Your task to perform on an android device: turn on sleep mode Image 0: 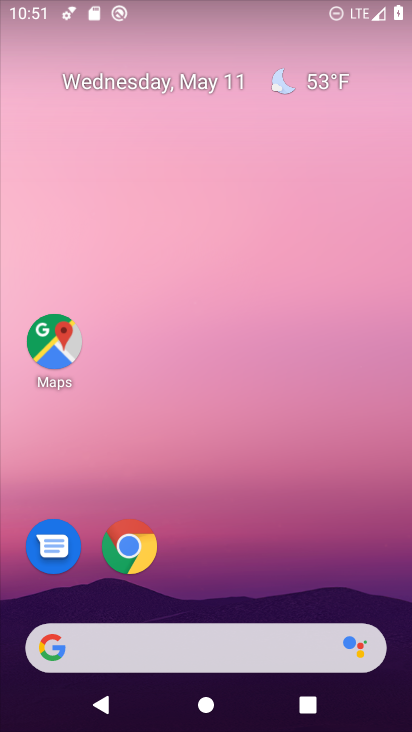
Step 0: drag from (404, 636) to (291, 40)
Your task to perform on an android device: turn on sleep mode Image 1: 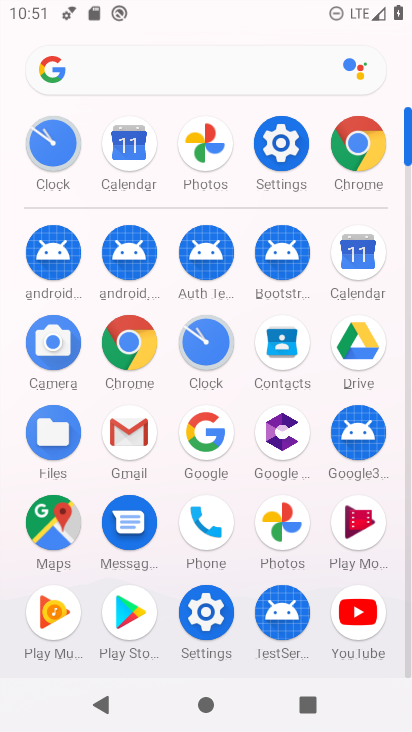
Step 1: click (226, 626)
Your task to perform on an android device: turn on sleep mode Image 2: 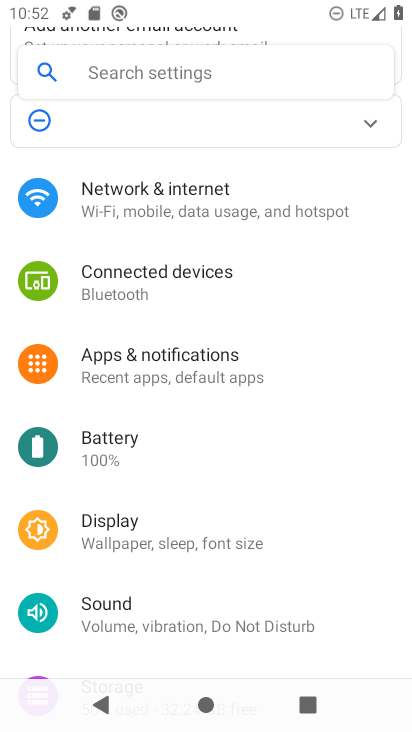
Step 2: task complete